Your task to perform on an android device: Do I have any events today? Image 0: 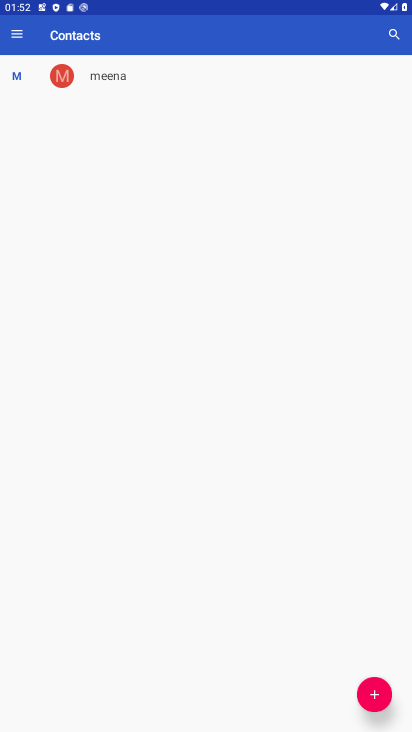
Step 0: press home button
Your task to perform on an android device: Do I have any events today? Image 1: 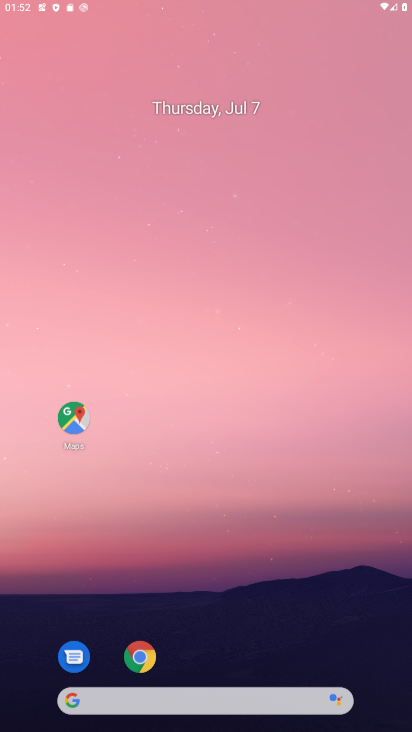
Step 1: drag from (297, 450) to (336, 17)
Your task to perform on an android device: Do I have any events today? Image 2: 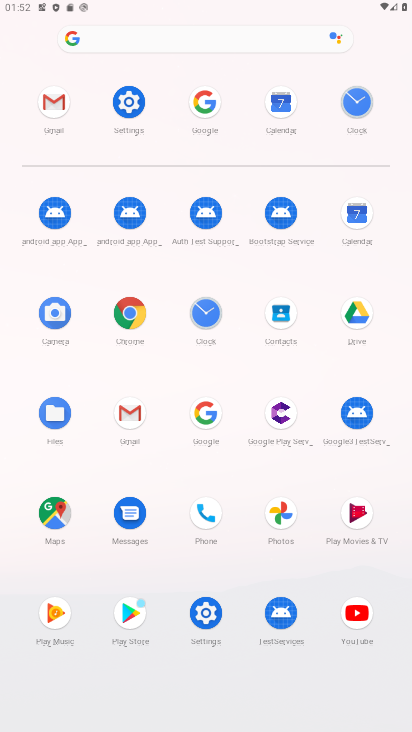
Step 2: click (354, 192)
Your task to perform on an android device: Do I have any events today? Image 3: 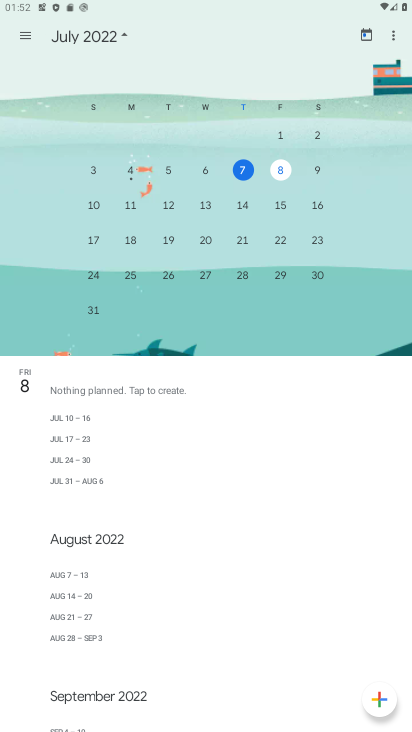
Step 3: click (246, 165)
Your task to perform on an android device: Do I have any events today? Image 4: 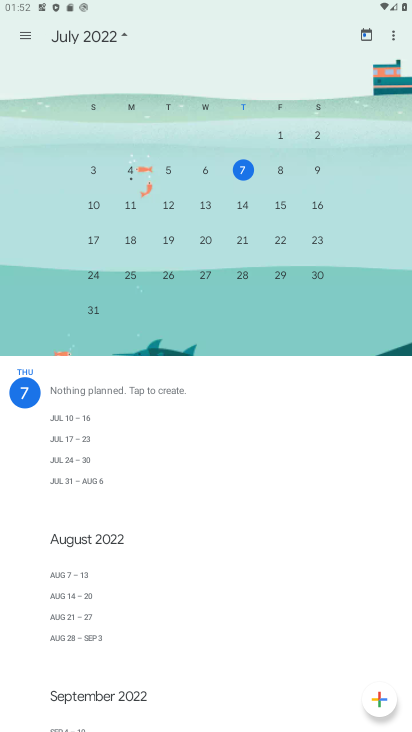
Step 4: task complete